Your task to perform on an android device: Go to Maps Image 0: 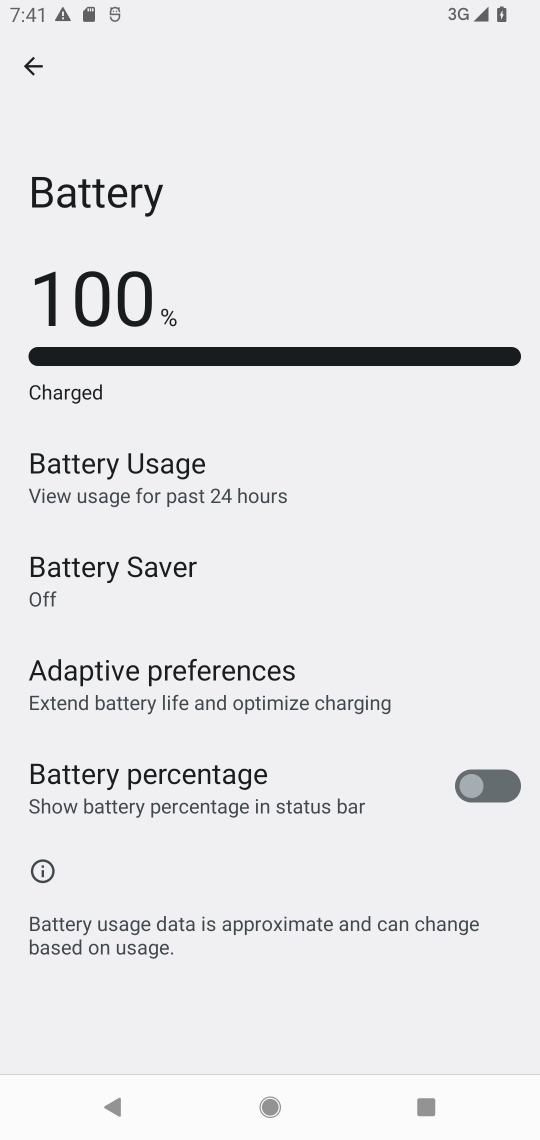
Step 0: press home button
Your task to perform on an android device: Go to Maps Image 1: 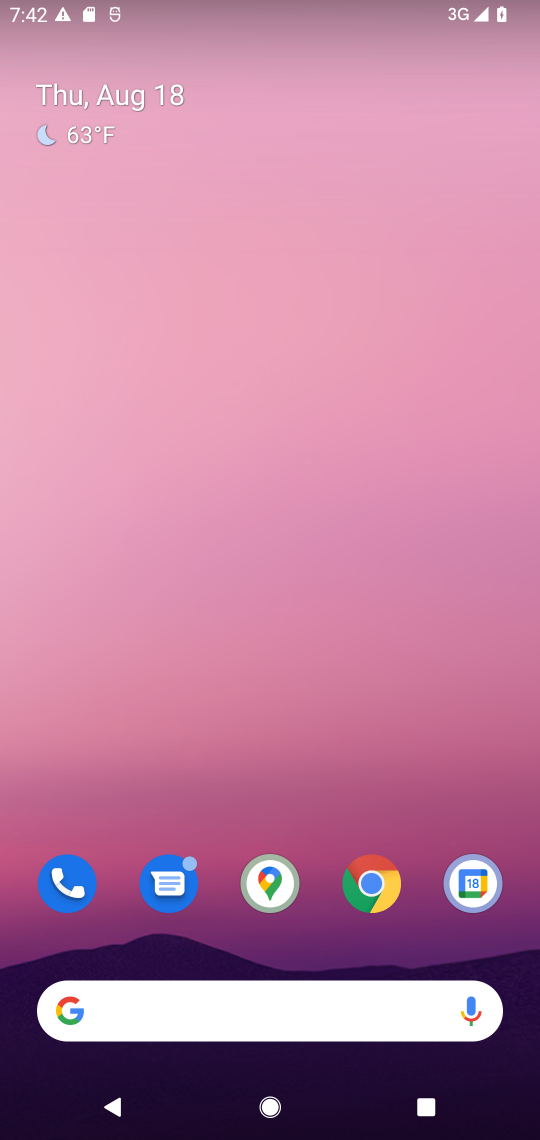
Step 1: click (469, 879)
Your task to perform on an android device: Go to Maps Image 2: 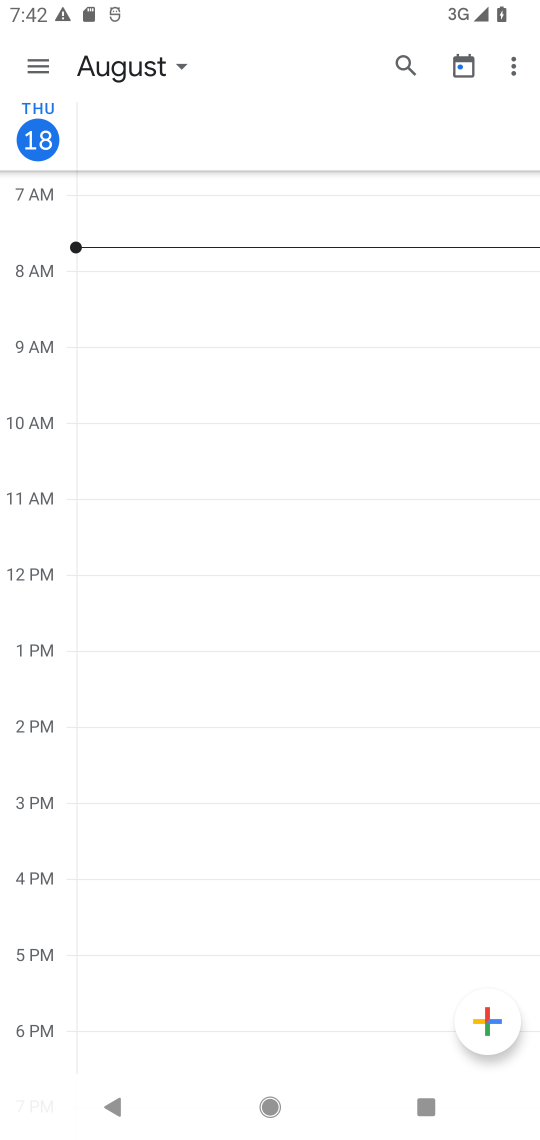
Step 2: press back button
Your task to perform on an android device: Go to Maps Image 3: 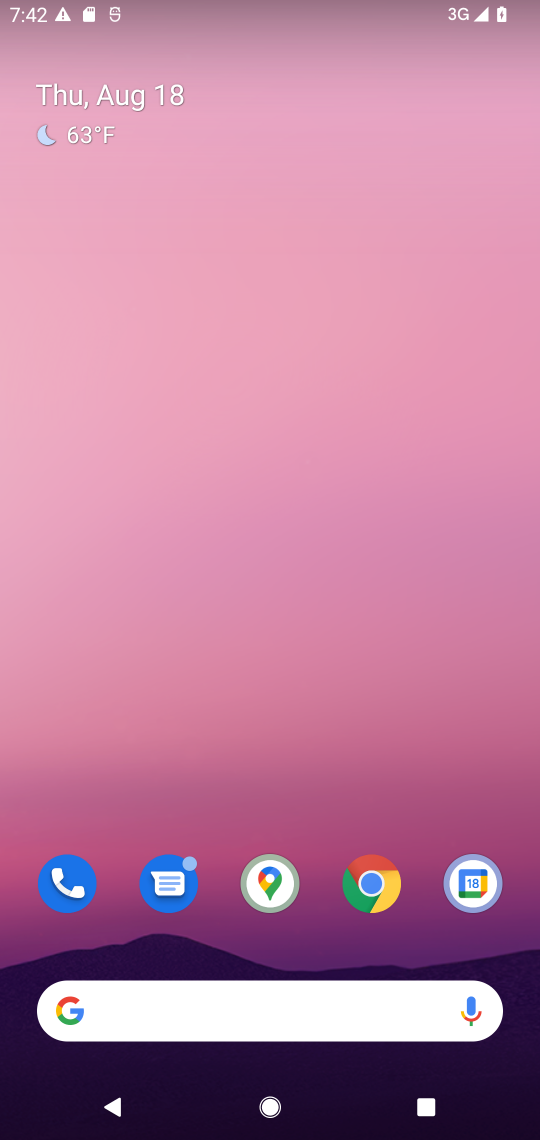
Step 3: click (285, 882)
Your task to perform on an android device: Go to Maps Image 4: 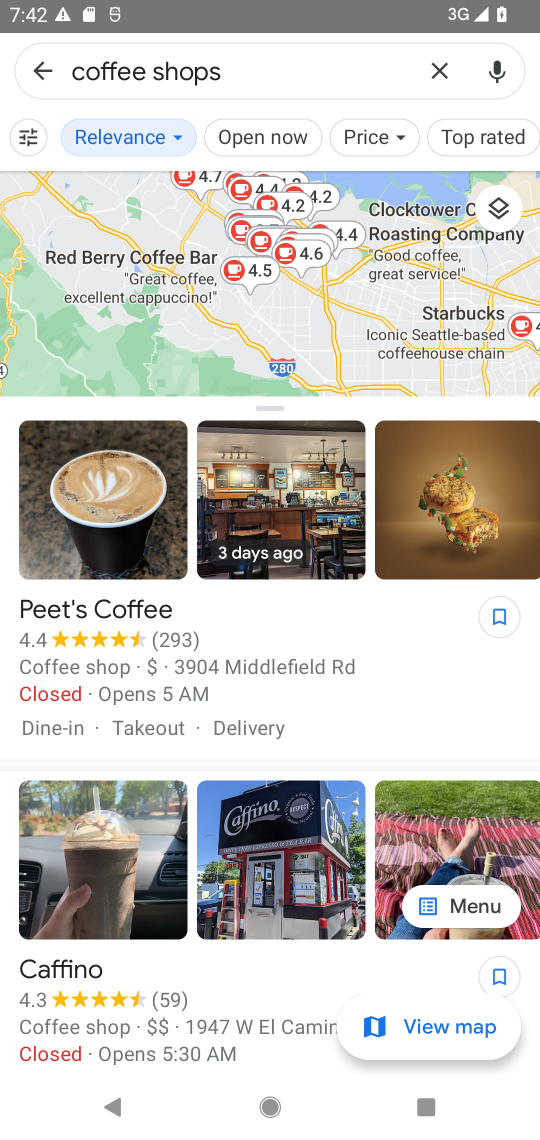
Step 4: click (27, 89)
Your task to perform on an android device: Go to Maps Image 5: 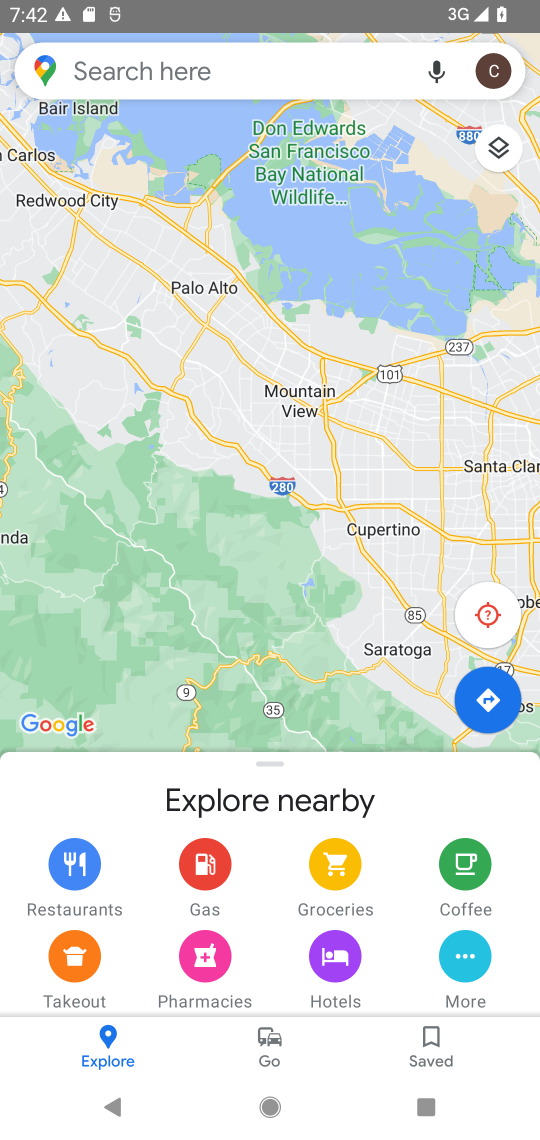
Step 5: task complete